Your task to perform on an android device: see creations saved in the google photos Image 0: 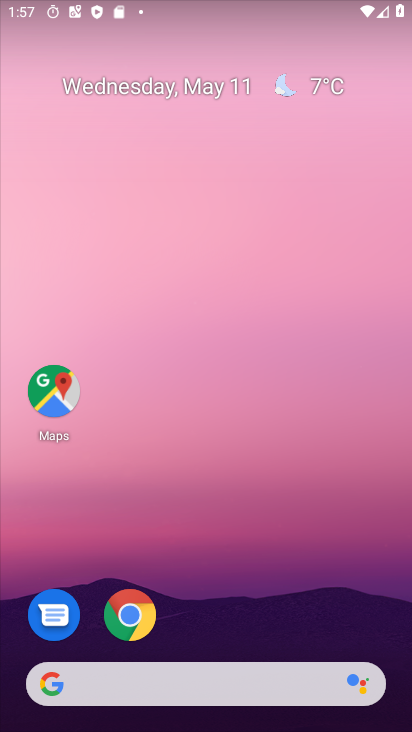
Step 0: drag from (182, 672) to (236, 9)
Your task to perform on an android device: see creations saved in the google photos Image 1: 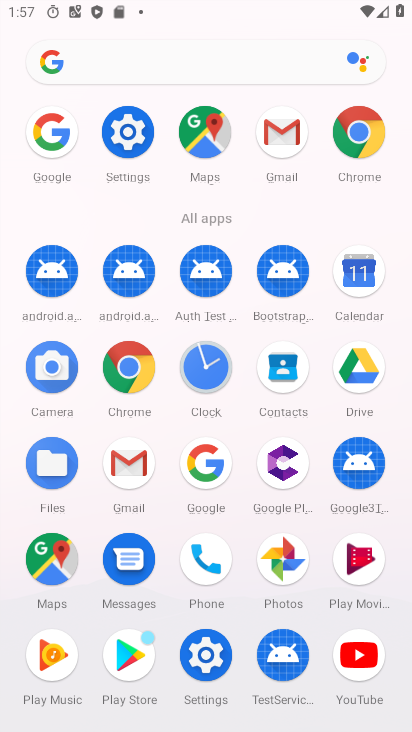
Step 1: click (263, 548)
Your task to perform on an android device: see creations saved in the google photos Image 2: 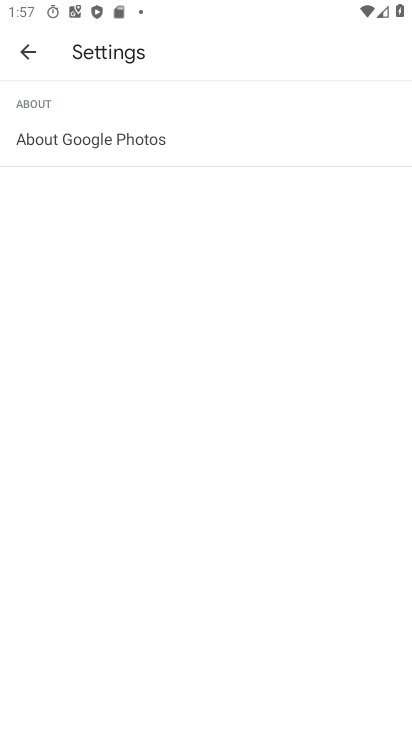
Step 2: click (22, 40)
Your task to perform on an android device: see creations saved in the google photos Image 3: 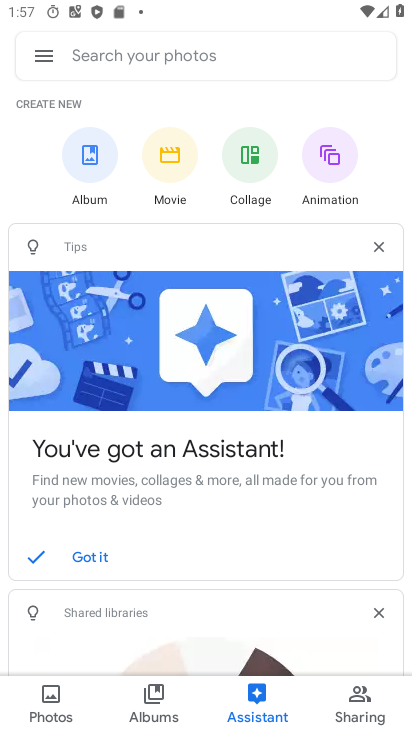
Step 3: drag from (204, 555) to (184, 96)
Your task to perform on an android device: see creations saved in the google photos Image 4: 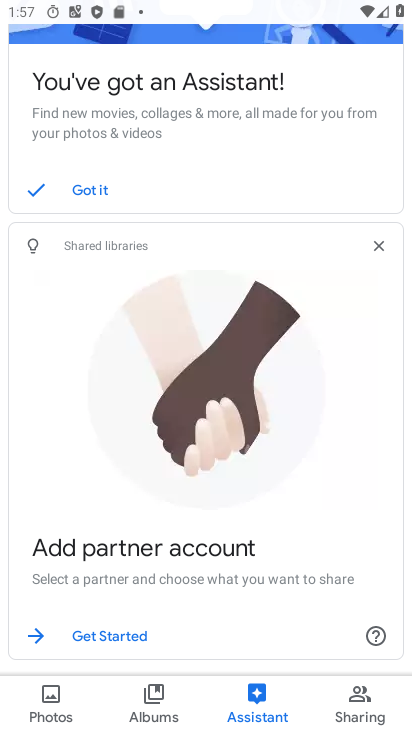
Step 4: click (158, 699)
Your task to perform on an android device: see creations saved in the google photos Image 5: 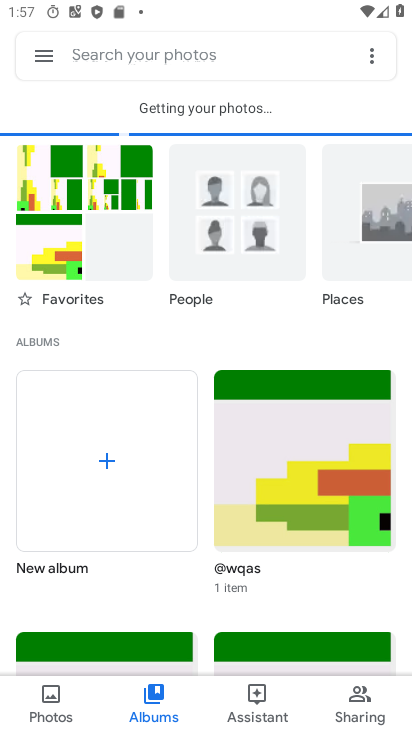
Step 5: task complete